Your task to perform on an android device: Open network settings Image 0: 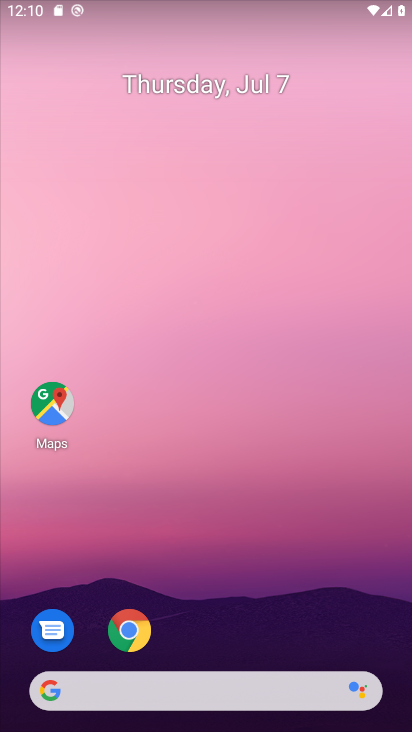
Step 0: drag from (212, 677) to (213, 358)
Your task to perform on an android device: Open network settings Image 1: 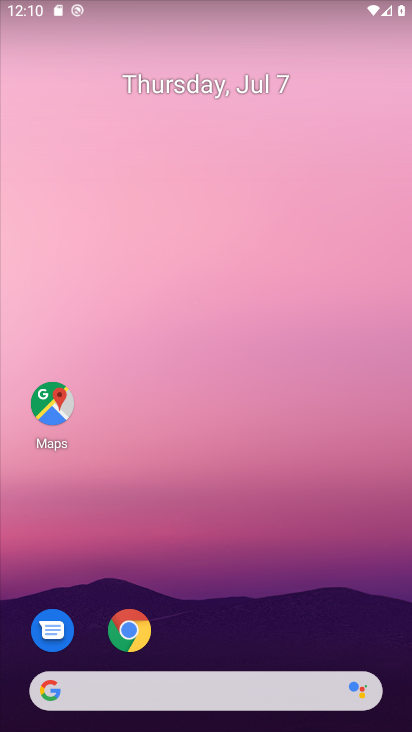
Step 1: drag from (232, 526) to (228, 169)
Your task to perform on an android device: Open network settings Image 2: 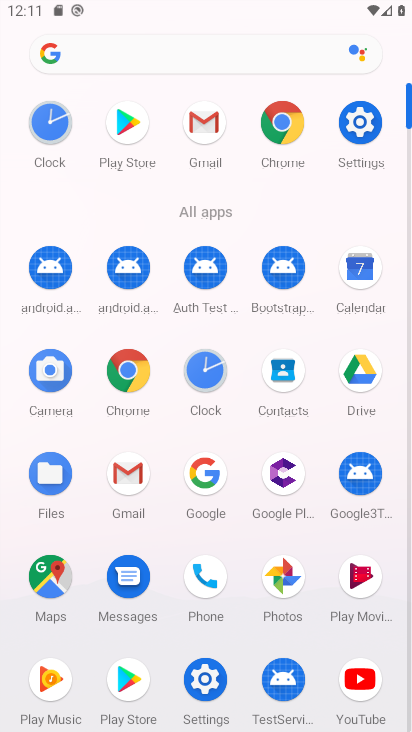
Step 2: click (351, 112)
Your task to perform on an android device: Open network settings Image 3: 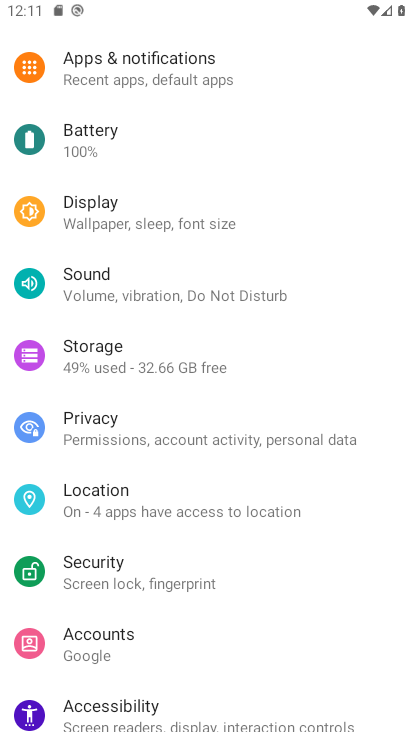
Step 3: drag from (204, 149) to (242, 510)
Your task to perform on an android device: Open network settings Image 4: 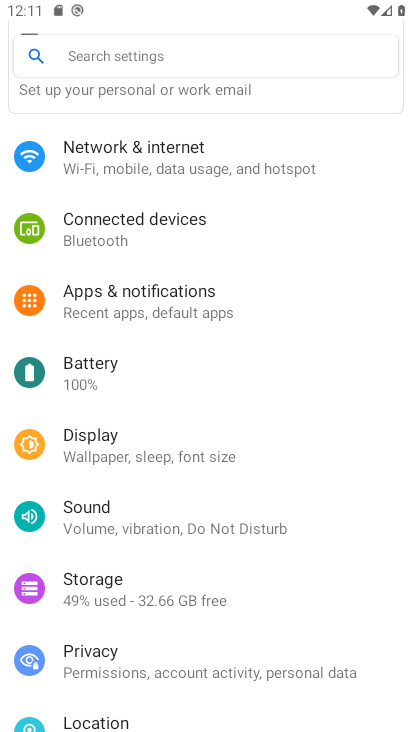
Step 4: click (155, 144)
Your task to perform on an android device: Open network settings Image 5: 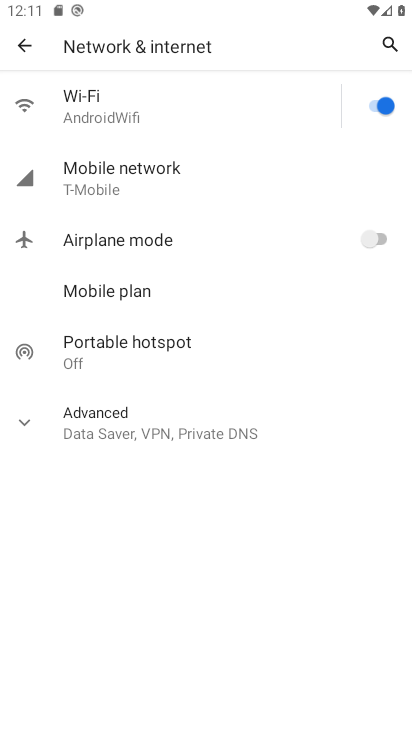
Step 5: task complete